Your task to perform on an android device: Search for Italian restaurants on Maps Image 0: 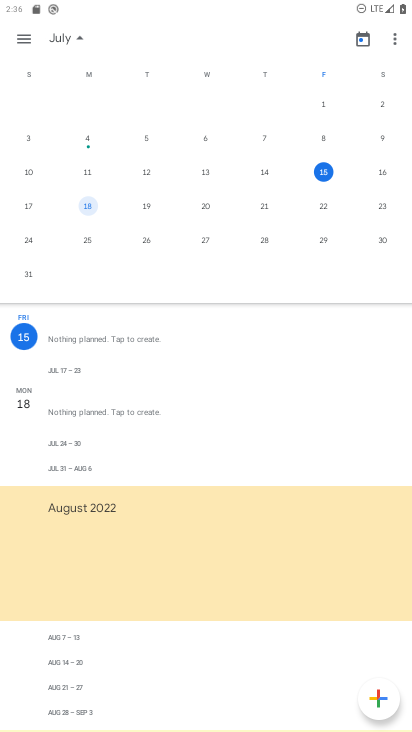
Step 0: press home button
Your task to perform on an android device: Search for Italian restaurants on Maps Image 1: 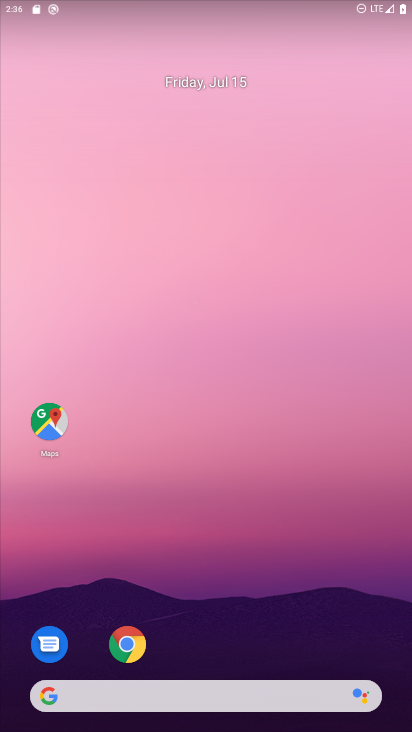
Step 1: click (48, 411)
Your task to perform on an android device: Search for Italian restaurants on Maps Image 2: 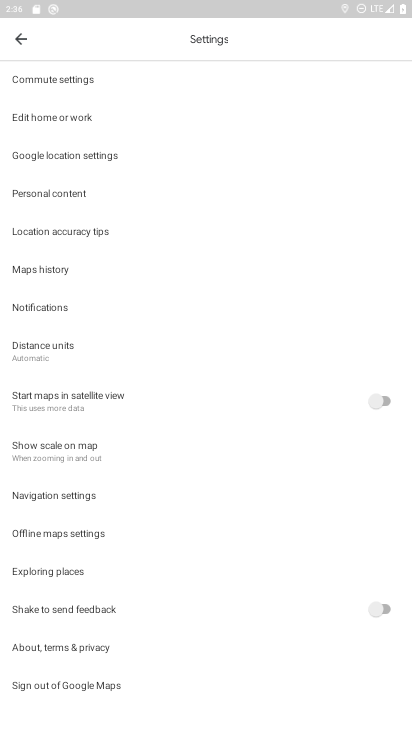
Step 2: press home button
Your task to perform on an android device: Search for Italian restaurants on Maps Image 3: 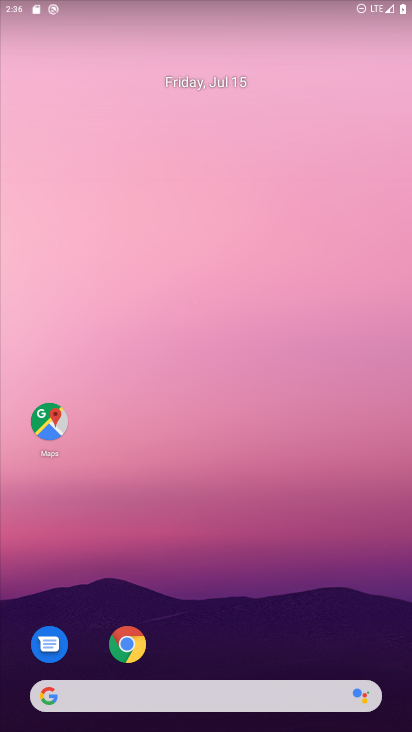
Step 3: click (50, 421)
Your task to perform on an android device: Search for Italian restaurants on Maps Image 4: 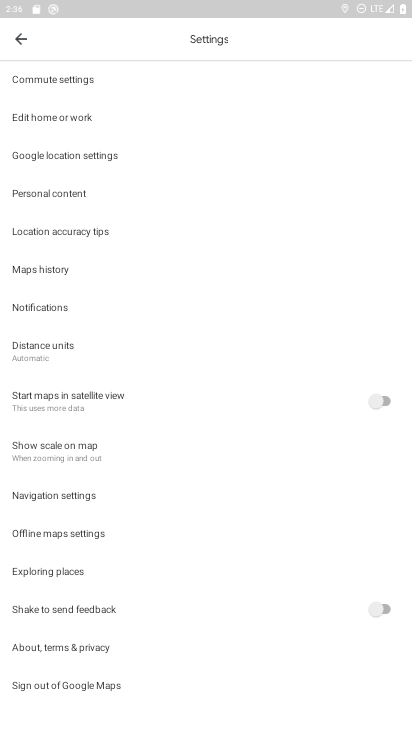
Step 4: click (30, 33)
Your task to perform on an android device: Search for Italian restaurants on Maps Image 5: 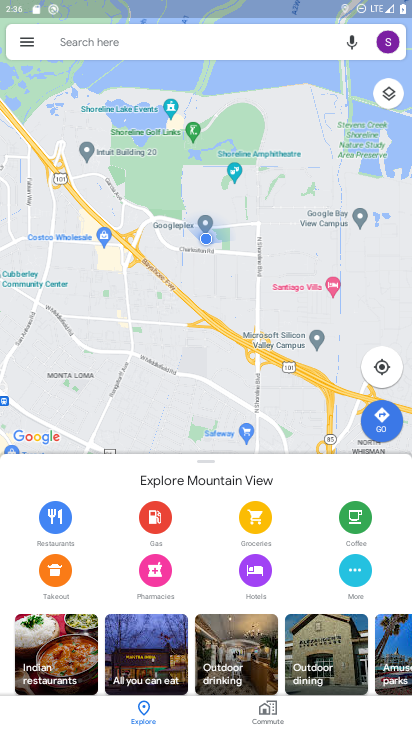
Step 5: click (127, 24)
Your task to perform on an android device: Search for Italian restaurants on Maps Image 6: 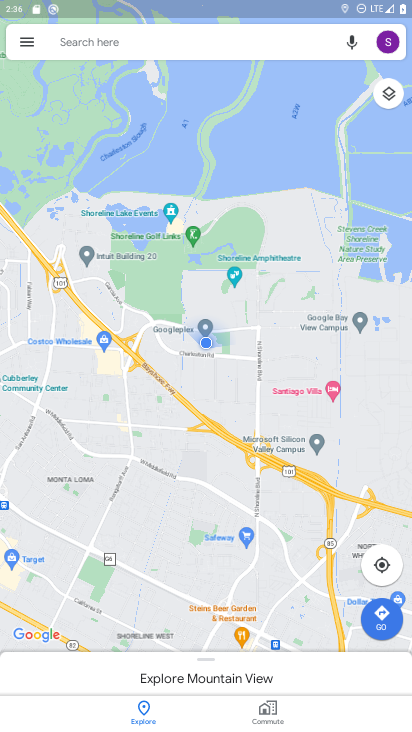
Step 6: click (131, 39)
Your task to perform on an android device: Search for Italian restaurants on Maps Image 7: 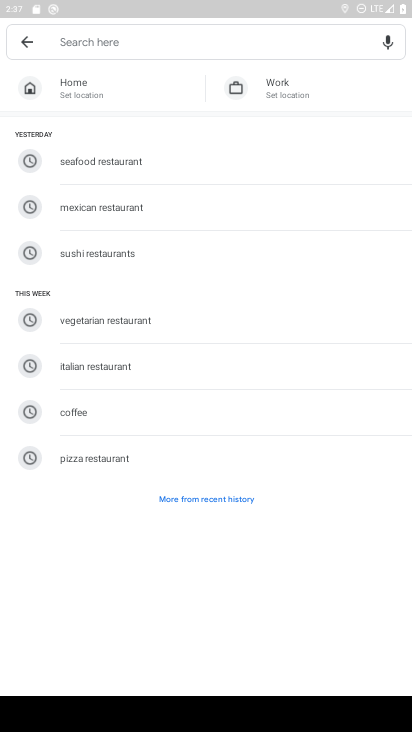
Step 7: type "Italian restaurants"
Your task to perform on an android device: Search for Italian restaurants on Maps Image 8: 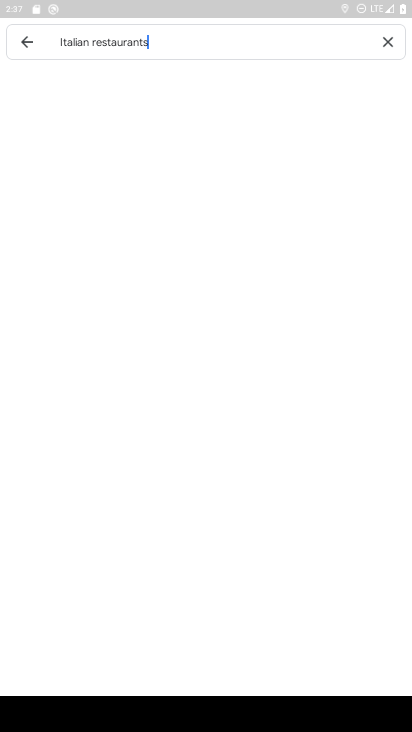
Step 8: type ""
Your task to perform on an android device: Search for Italian restaurants on Maps Image 9: 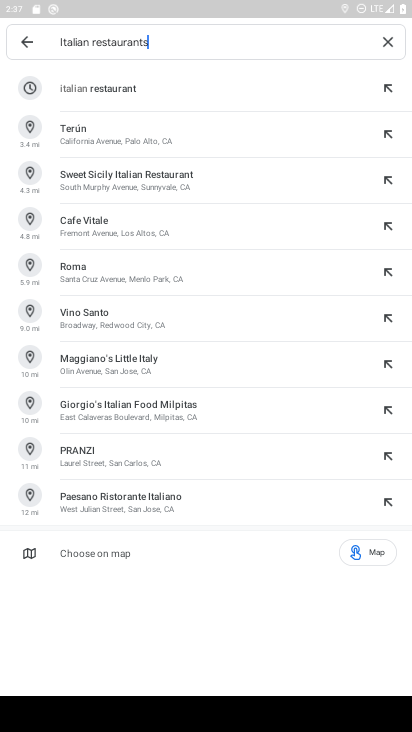
Step 9: click (113, 89)
Your task to perform on an android device: Search for Italian restaurants on Maps Image 10: 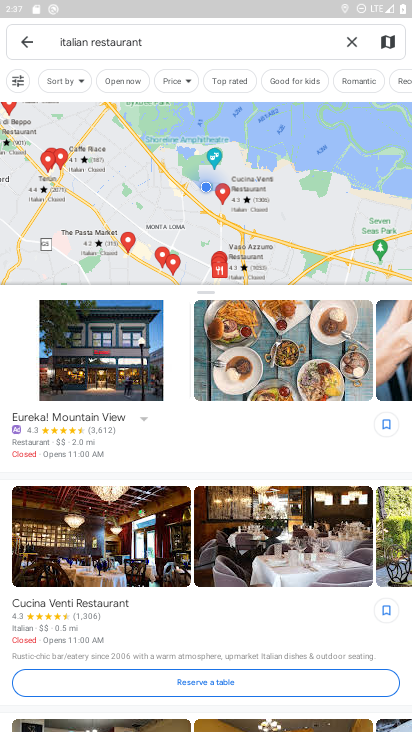
Step 10: task complete